Your task to perform on an android device: set default search engine in the chrome app Image 0: 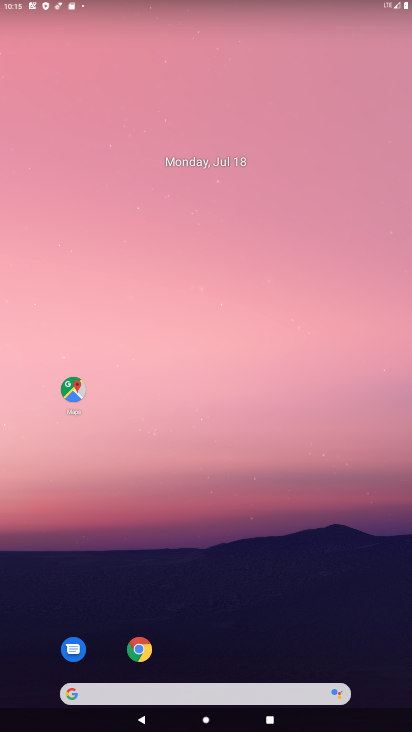
Step 0: click (145, 653)
Your task to perform on an android device: set default search engine in the chrome app Image 1: 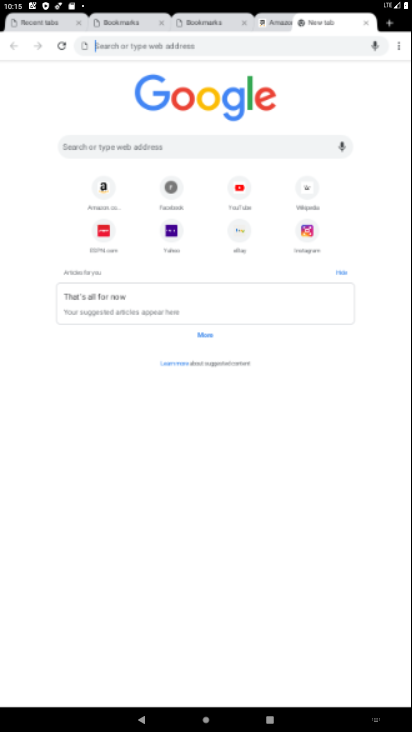
Step 1: click (400, 42)
Your task to perform on an android device: set default search engine in the chrome app Image 2: 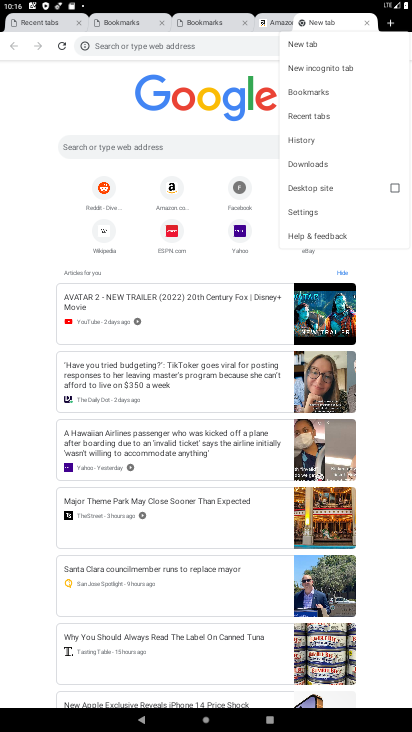
Step 2: click (318, 208)
Your task to perform on an android device: set default search engine in the chrome app Image 3: 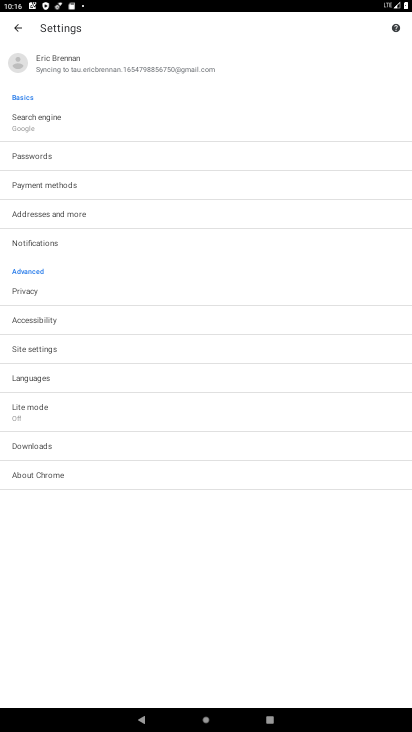
Step 3: click (69, 126)
Your task to perform on an android device: set default search engine in the chrome app Image 4: 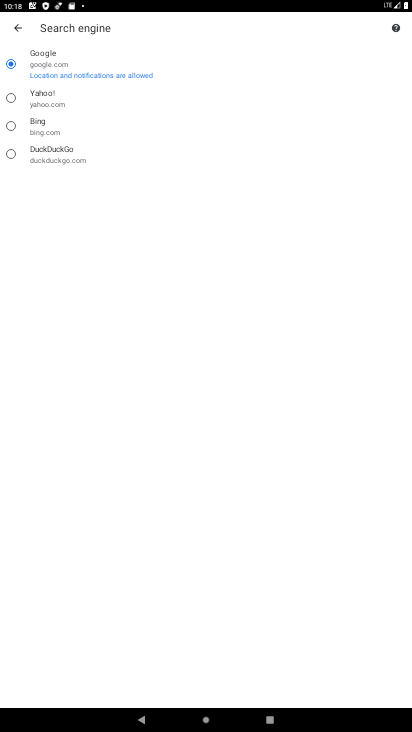
Step 4: task complete